Your task to perform on an android device: find photos in the google photos app Image 0: 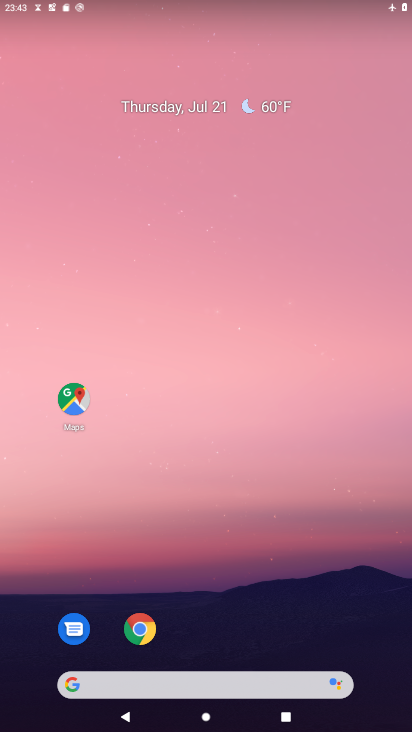
Step 0: drag from (245, 599) to (236, 179)
Your task to perform on an android device: find photos in the google photos app Image 1: 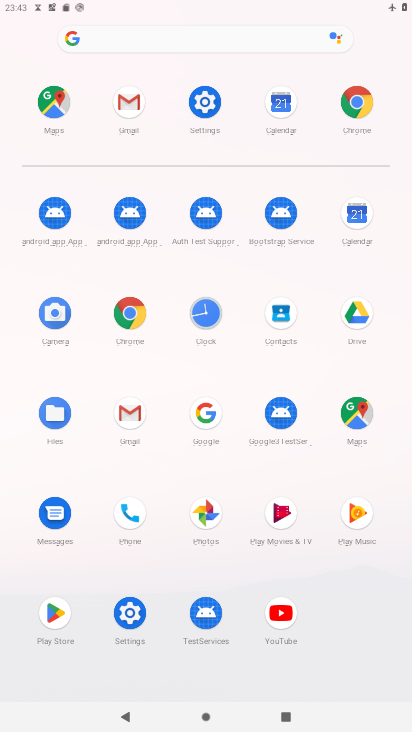
Step 1: click (213, 523)
Your task to perform on an android device: find photos in the google photos app Image 2: 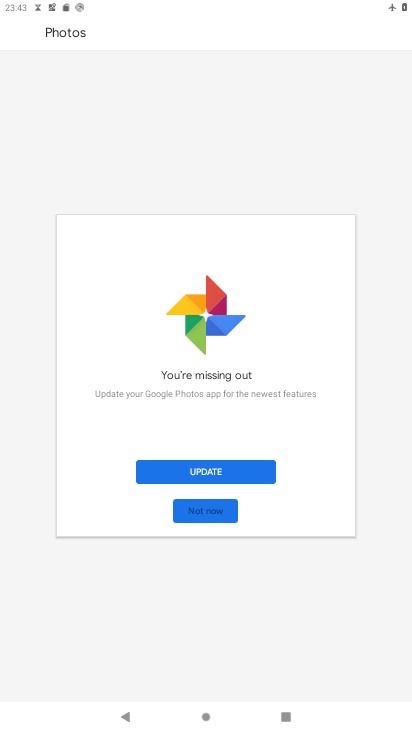
Step 2: click (215, 503)
Your task to perform on an android device: find photos in the google photos app Image 3: 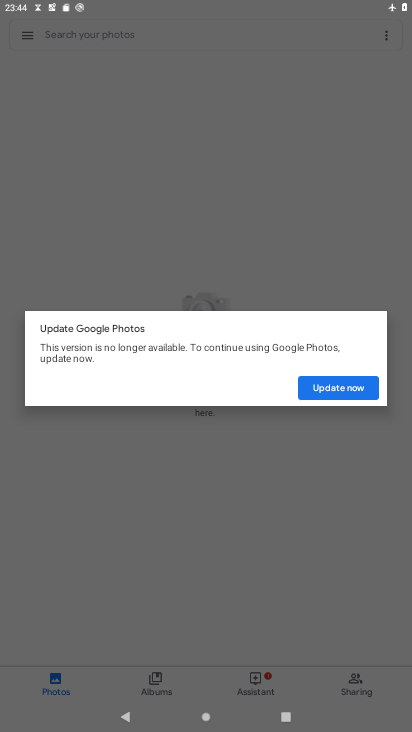
Step 3: click (357, 385)
Your task to perform on an android device: find photos in the google photos app Image 4: 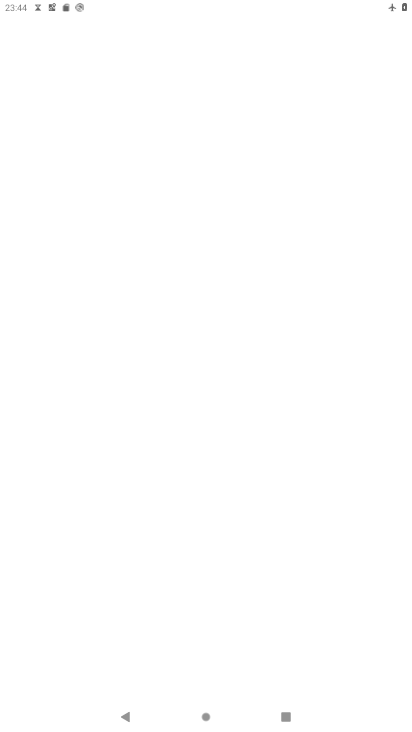
Step 4: press back button
Your task to perform on an android device: find photos in the google photos app Image 5: 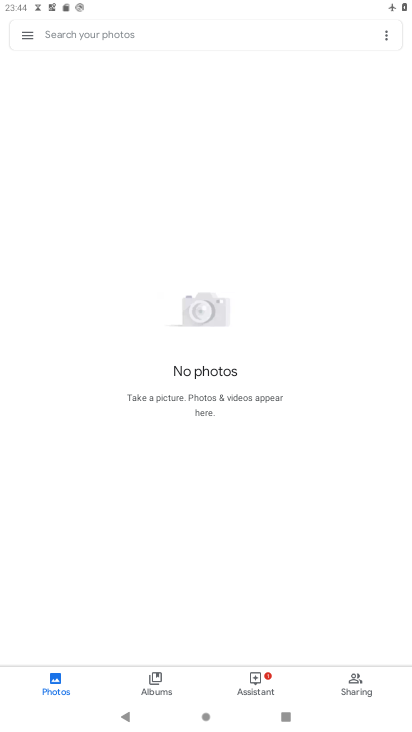
Step 5: click (152, 696)
Your task to perform on an android device: find photos in the google photos app Image 6: 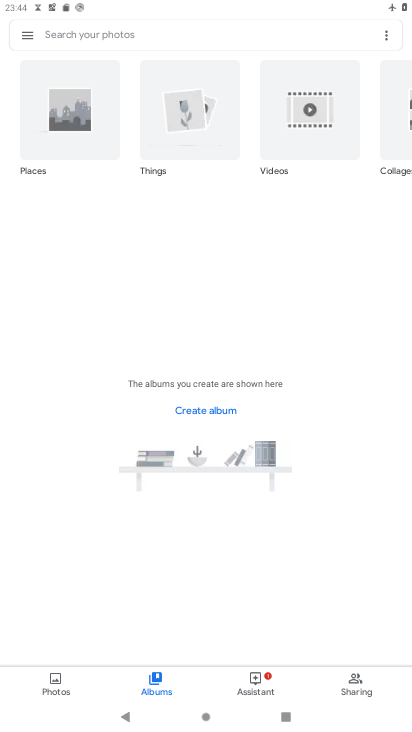
Step 6: click (170, 674)
Your task to perform on an android device: find photos in the google photos app Image 7: 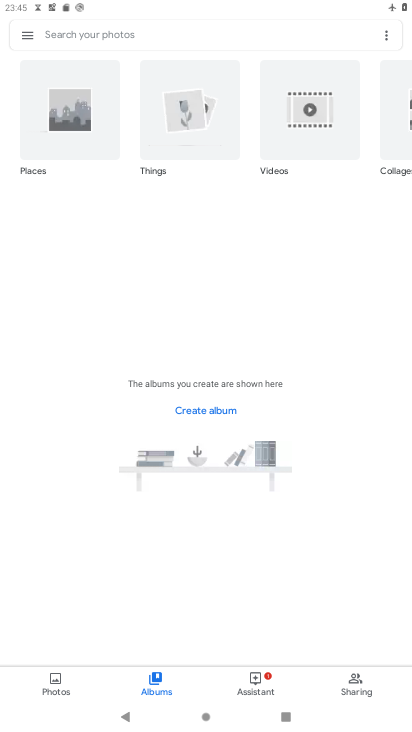
Step 7: task complete